Your task to perform on an android device: Open accessibility settings Image 0: 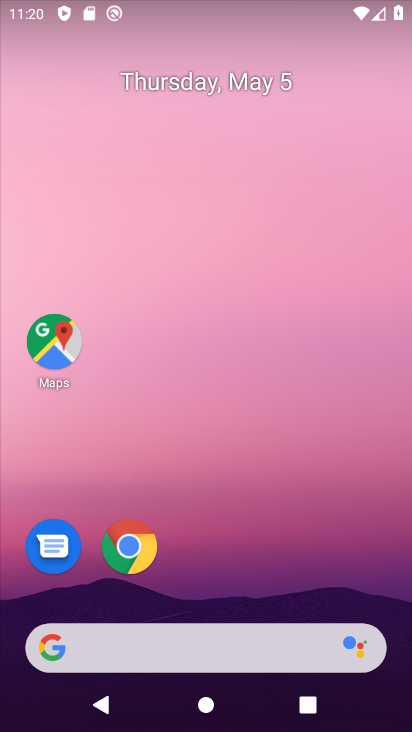
Step 0: drag from (177, 609) to (192, 130)
Your task to perform on an android device: Open accessibility settings Image 1: 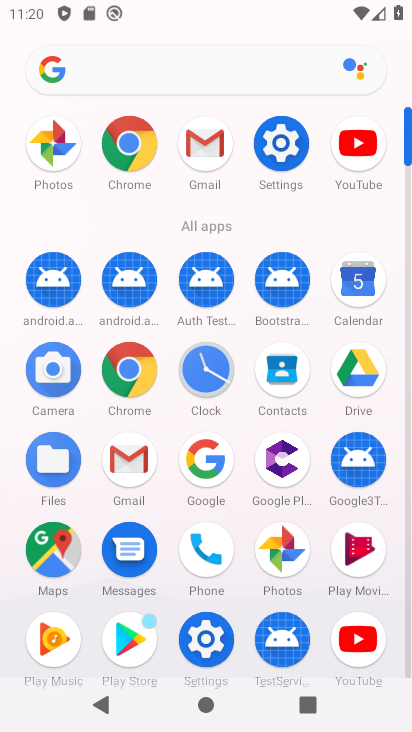
Step 1: click (283, 140)
Your task to perform on an android device: Open accessibility settings Image 2: 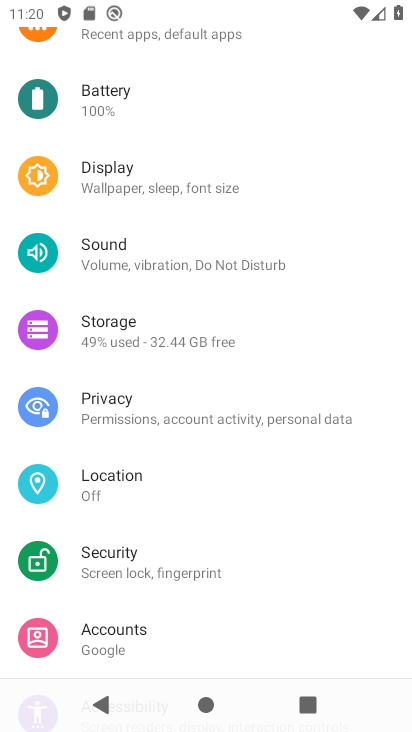
Step 2: drag from (332, 507) to (306, 13)
Your task to perform on an android device: Open accessibility settings Image 3: 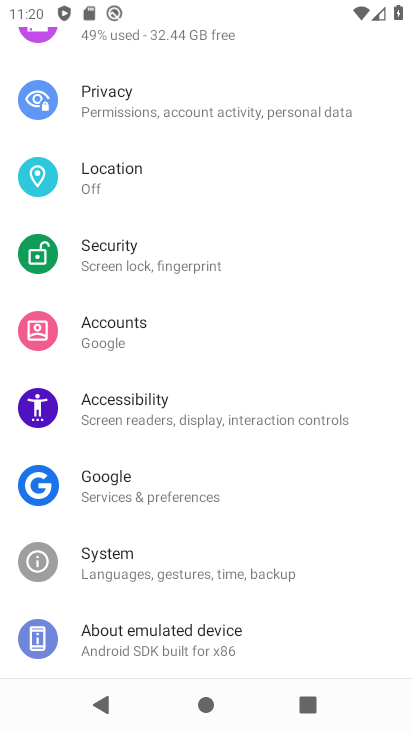
Step 3: click (139, 415)
Your task to perform on an android device: Open accessibility settings Image 4: 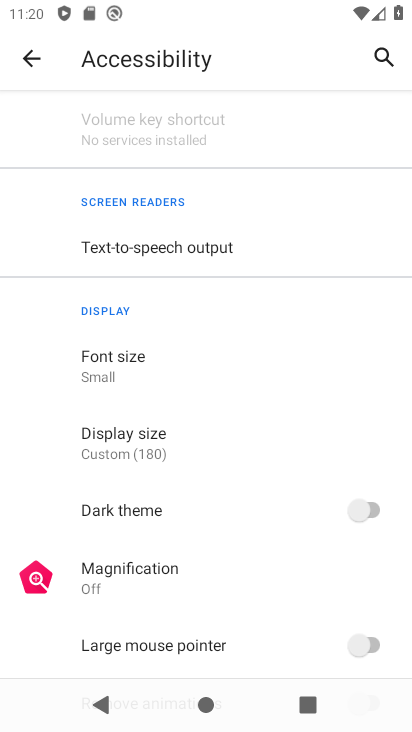
Step 4: task complete